Your task to perform on an android device: Do I have any events today? Image 0: 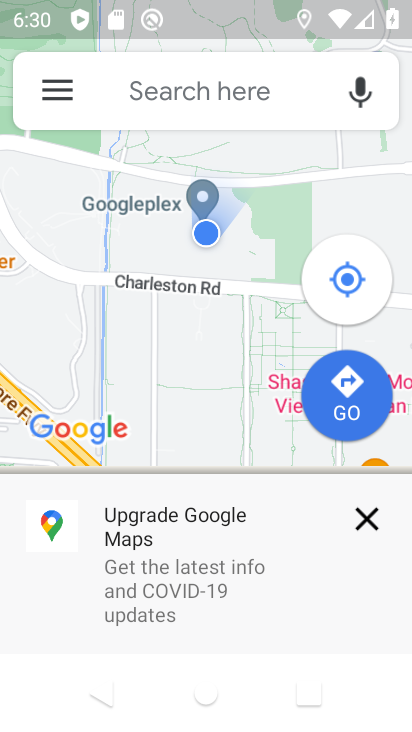
Step 0: press home button
Your task to perform on an android device: Do I have any events today? Image 1: 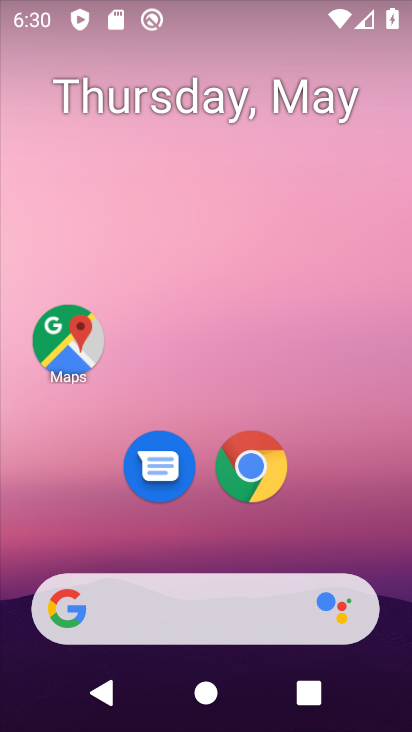
Step 1: drag from (335, 520) to (203, 63)
Your task to perform on an android device: Do I have any events today? Image 2: 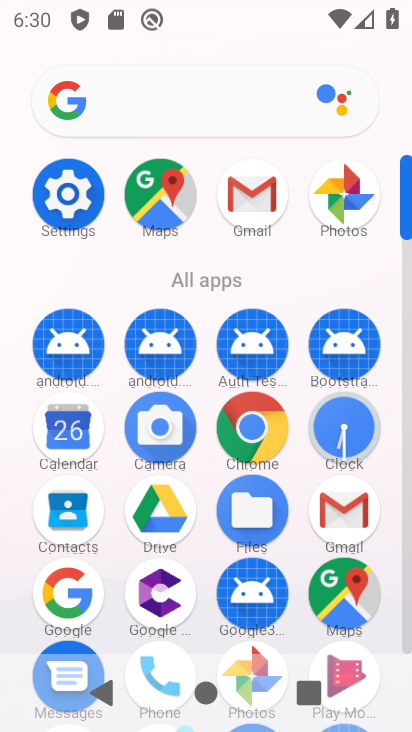
Step 2: click (61, 428)
Your task to perform on an android device: Do I have any events today? Image 3: 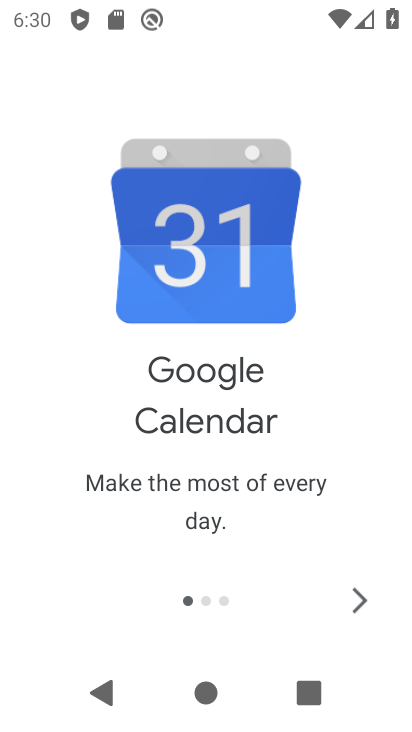
Step 3: click (355, 608)
Your task to perform on an android device: Do I have any events today? Image 4: 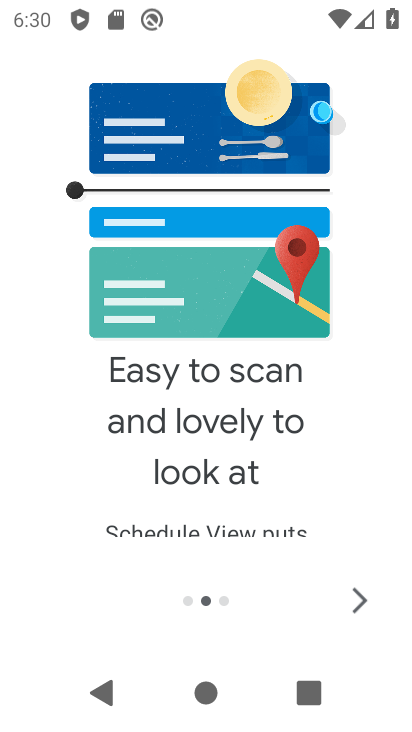
Step 4: click (359, 604)
Your task to perform on an android device: Do I have any events today? Image 5: 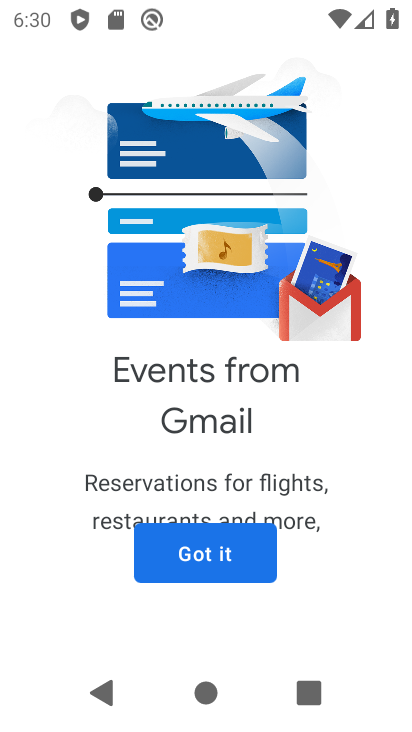
Step 5: click (219, 553)
Your task to perform on an android device: Do I have any events today? Image 6: 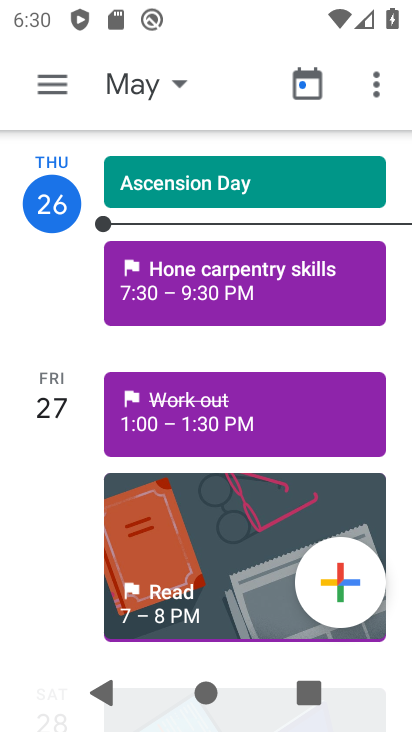
Step 6: click (47, 90)
Your task to perform on an android device: Do I have any events today? Image 7: 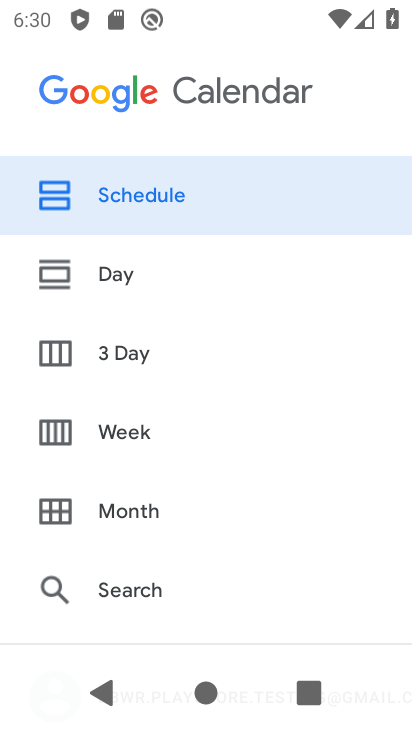
Step 7: click (111, 262)
Your task to perform on an android device: Do I have any events today? Image 8: 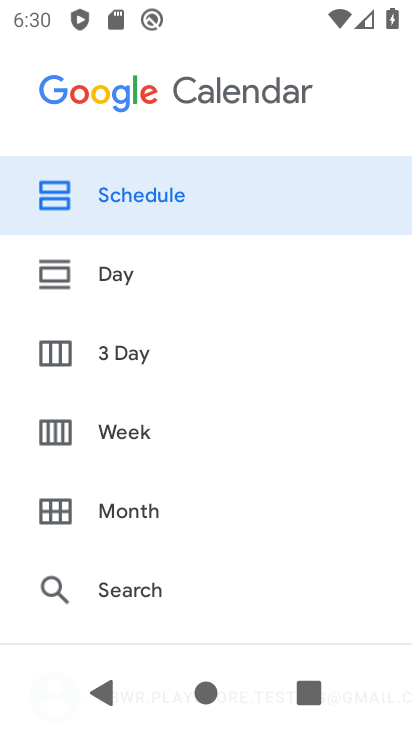
Step 8: click (113, 274)
Your task to perform on an android device: Do I have any events today? Image 9: 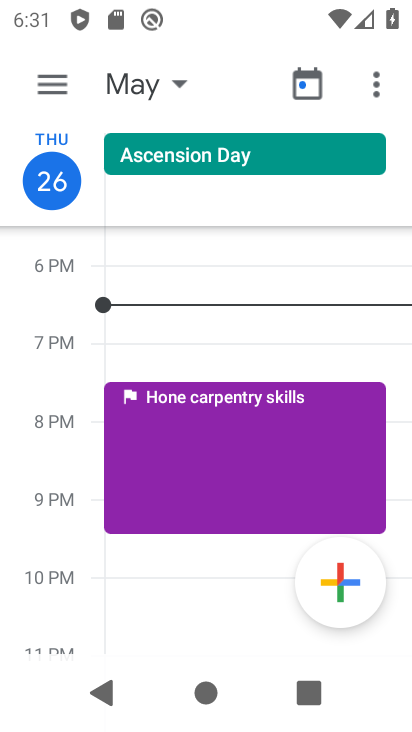
Step 9: task complete